Your task to perform on an android device: turn off improve location accuracy Image 0: 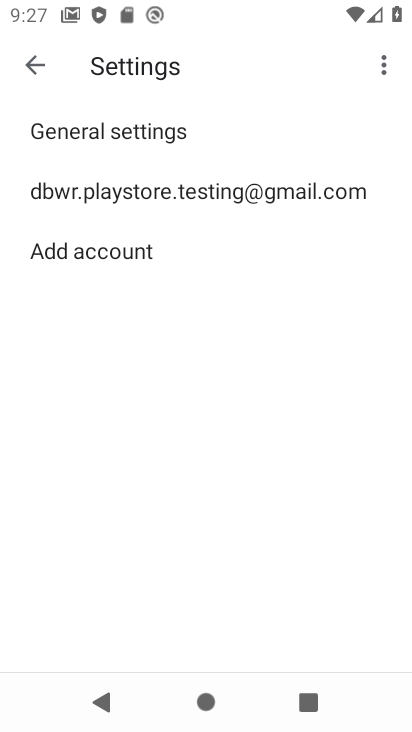
Step 0: press home button
Your task to perform on an android device: turn off improve location accuracy Image 1: 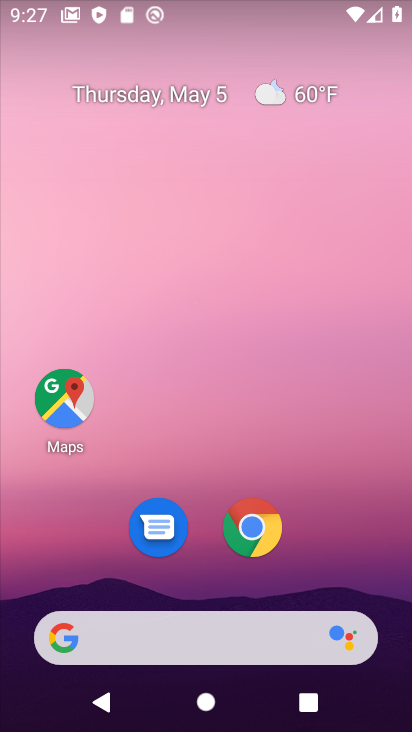
Step 1: drag from (209, 588) to (229, 11)
Your task to perform on an android device: turn off improve location accuracy Image 2: 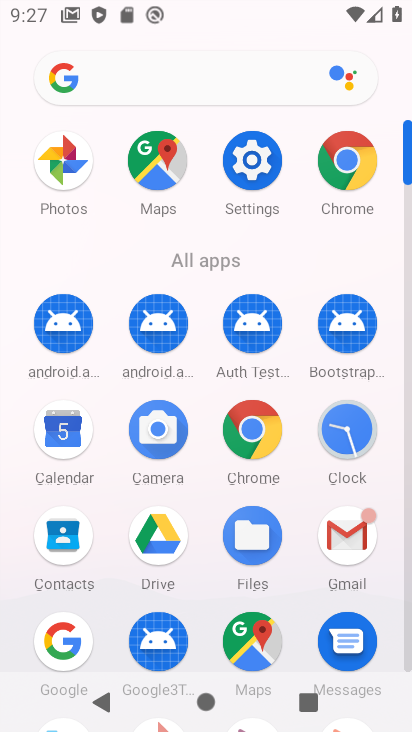
Step 2: click (249, 152)
Your task to perform on an android device: turn off improve location accuracy Image 3: 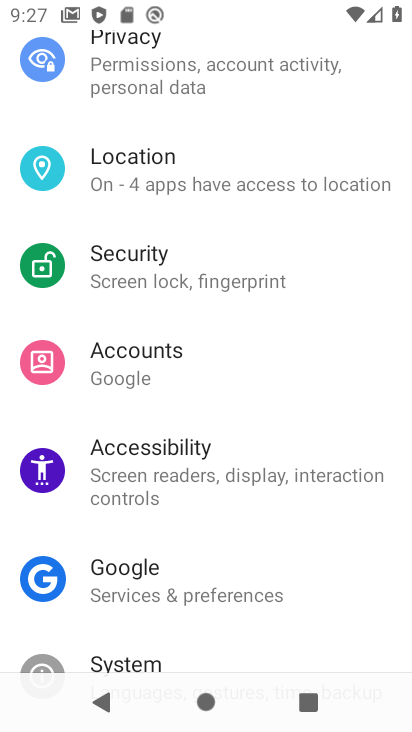
Step 3: click (206, 165)
Your task to perform on an android device: turn off improve location accuracy Image 4: 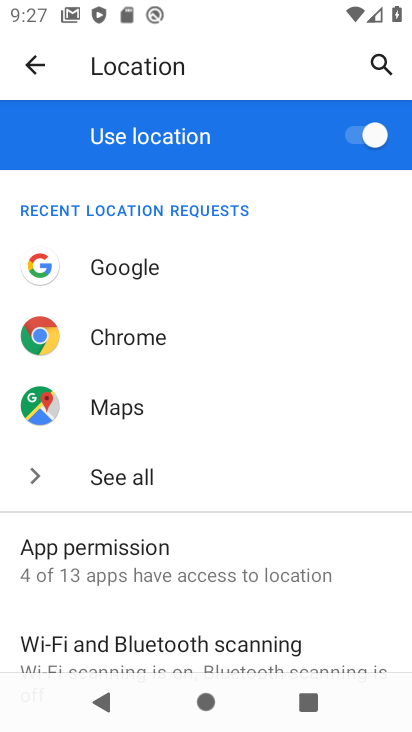
Step 4: drag from (197, 629) to (236, 82)
Your task to perform on an android device: turn off improve location accuracy Image 5: 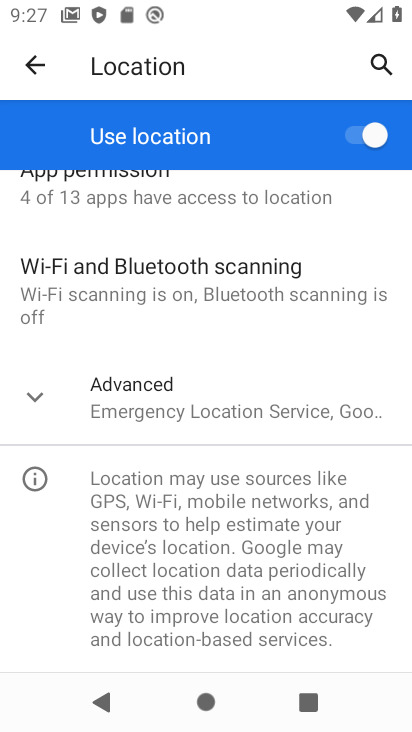
Step 5: click (30, 387)
Your task to perform on an android device: turn off improve location accuracy Image 6: 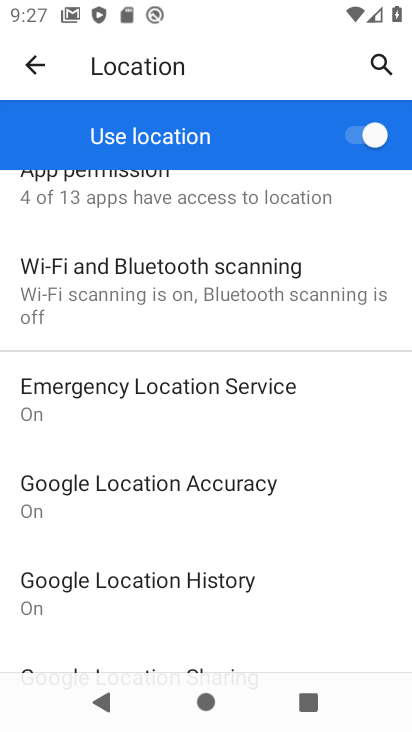
Step 6: click (62, 499)
Your task to perform on an android device: turn off improve location accuracy Image 7: 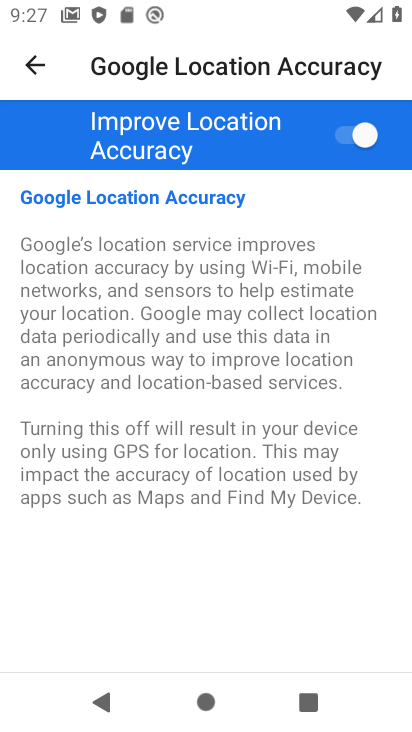
Step 7: click (350, 133)
Your task to perform on an android device: turn off improve location accuracy Image 8: 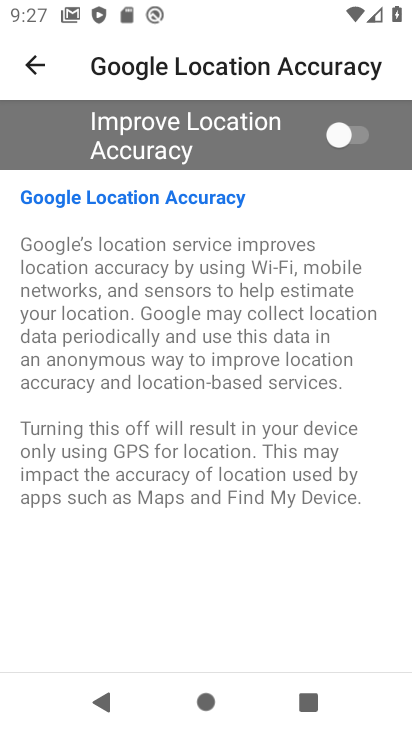
Step 8: task complete